Your task to perform on an android device: Add "razer kraken" to the cart on bestbuy.com, then select checkout. Image 0: 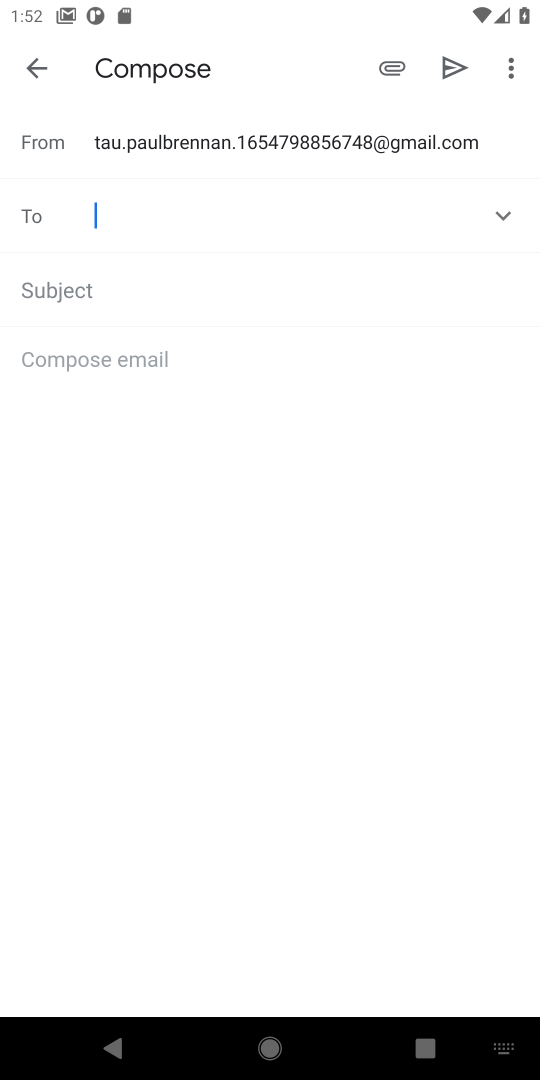
Step 0: press home button
Your task to perform on an android device: Add "razer kraken" to the cart on bestbuy.com, then select checkout. Image 1: 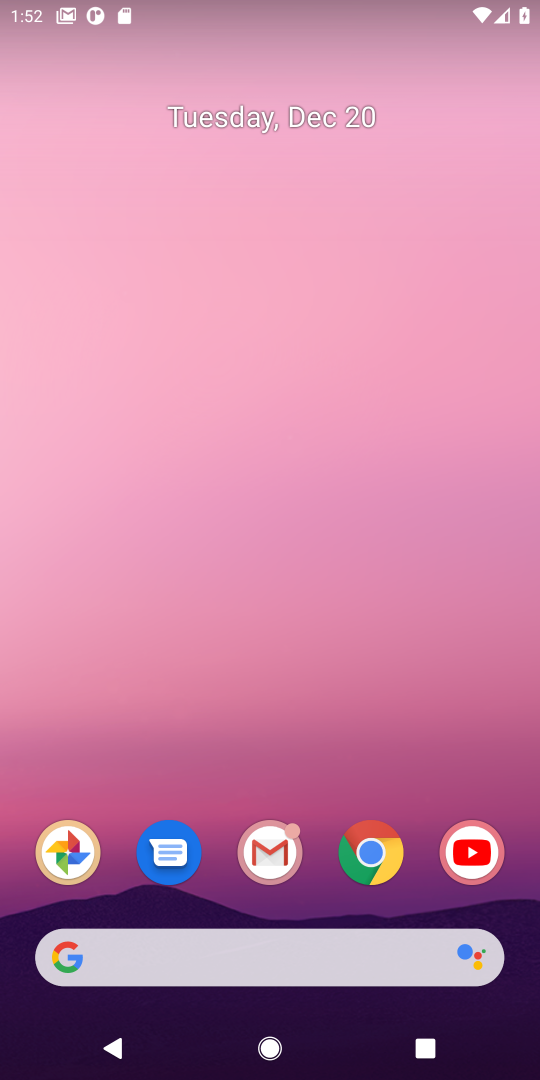
Step 1: click (366, 865)
Your task to perform on an android device: Add "razer kraken" to the cart on bestbuy.com, then select checkout. Image 2: 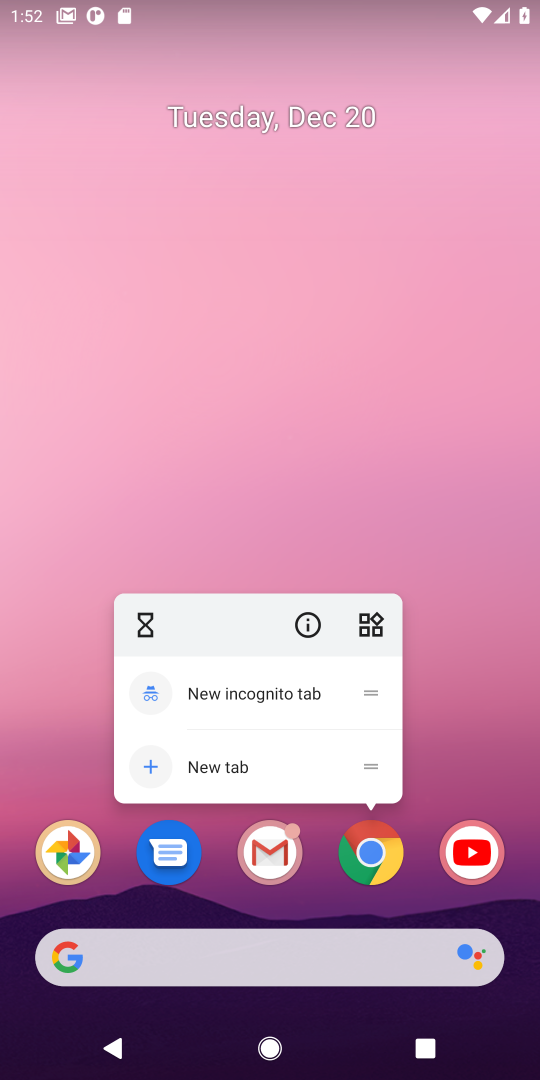
Step 2: click (366, 865)
Your task to perform on an android device: Add "razer kraken" to the cart on bestbuy.com, then select checkout. Image 3: 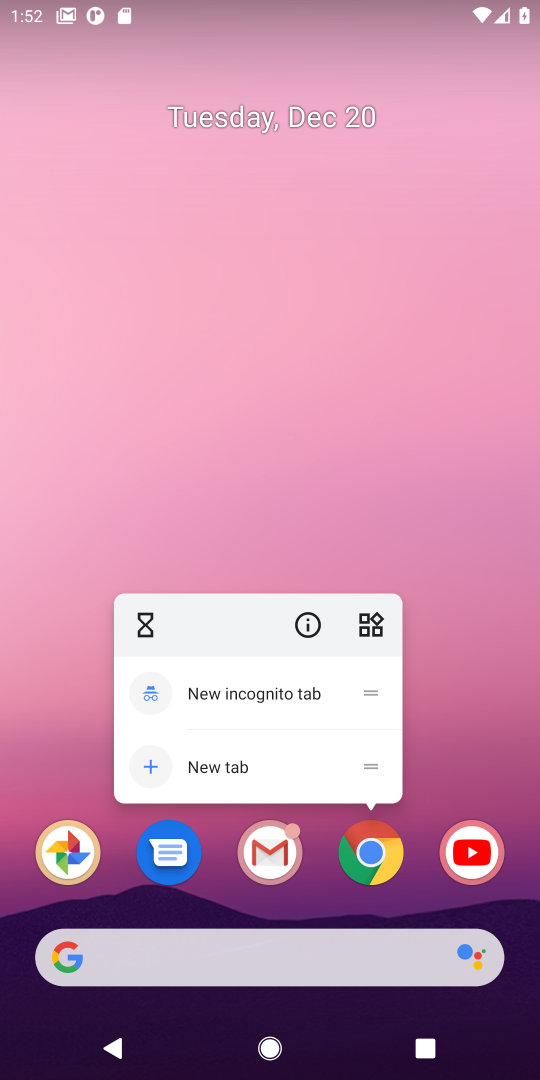
Step 3: click (382, 862)
Your task to perform on an android device: Add "razer kraken" to the cart on bestbuy.com, then select checkout. Image 4: 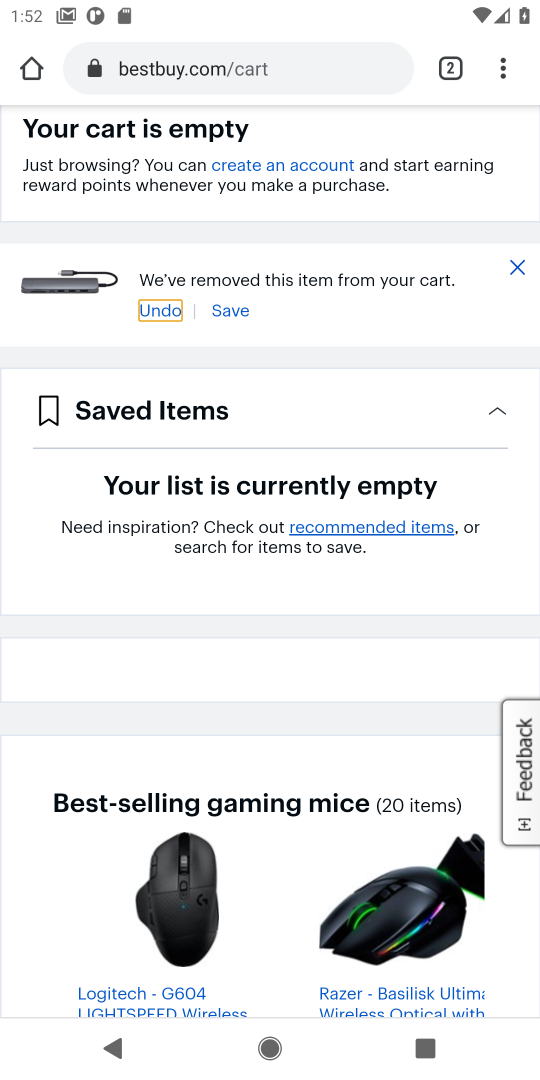
Step 4: drag from (231, 251) to (251, 677)
Your task to perform on an android device: Add "razer kraken" to the cart on bestbuy.com, then select checkout. Image 5: 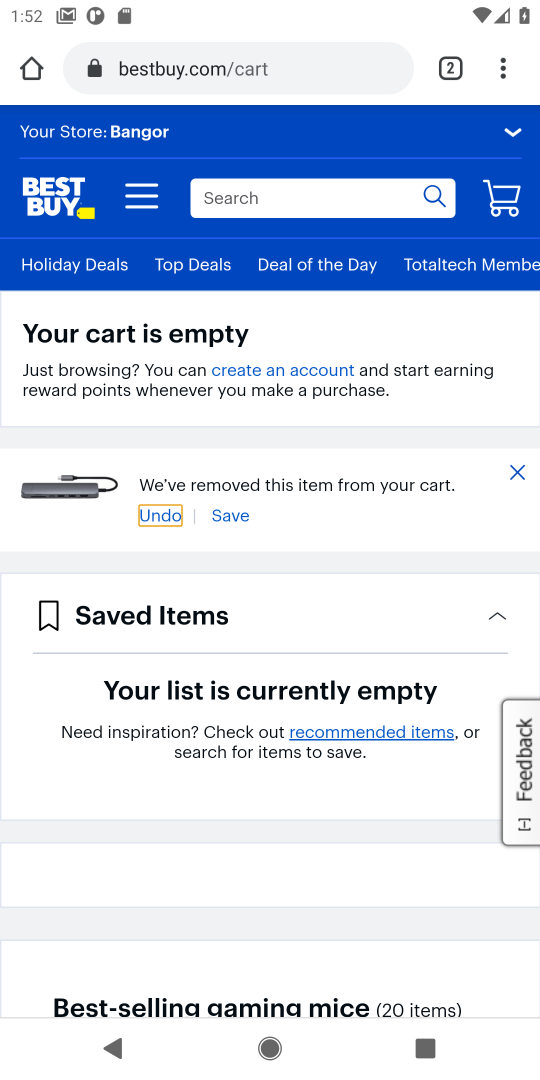
Step 5: click (233, 206)
Your task to perform on an android device: Add "razer kraken" to the cart on bestbuy.com, then select checkout. Image 6: 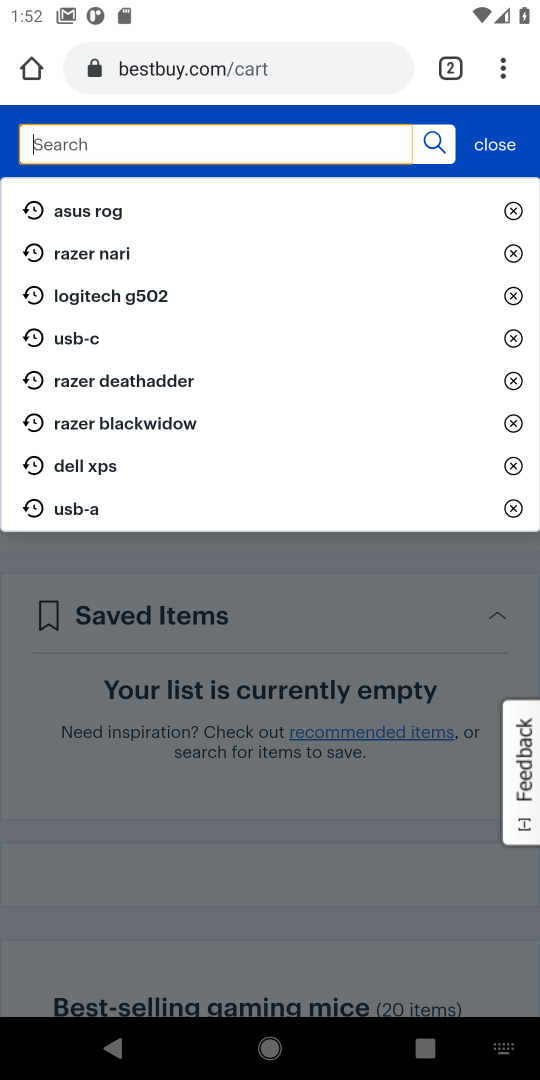
Step 6: type "razer kraken"
Your task to perform on an android device: Add "razer kraken" to the cart on bestbuy.com, then select checkout. Image 7: 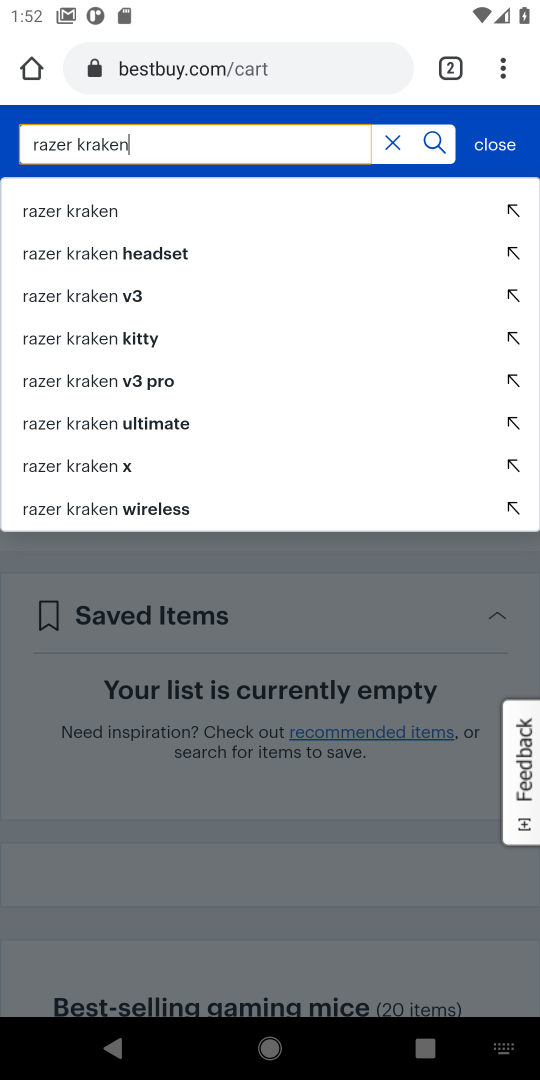
Step 7: click (55, 213)
Your task to perform on an android device: Add "razer kraken" to the cart on bestbuy.com, then select checkout. Image 8: 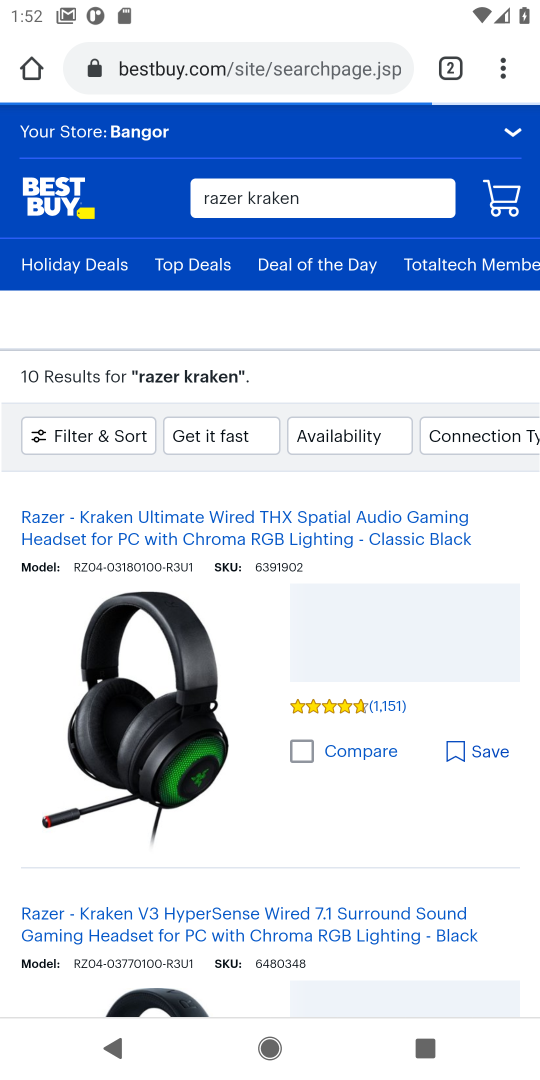
Step 8: drag from (166, 661) to (183, 345)
Your task to perform on an android device: Add "razer kraken" to the cart on bestbuy.com, then select checkout. Image 9: 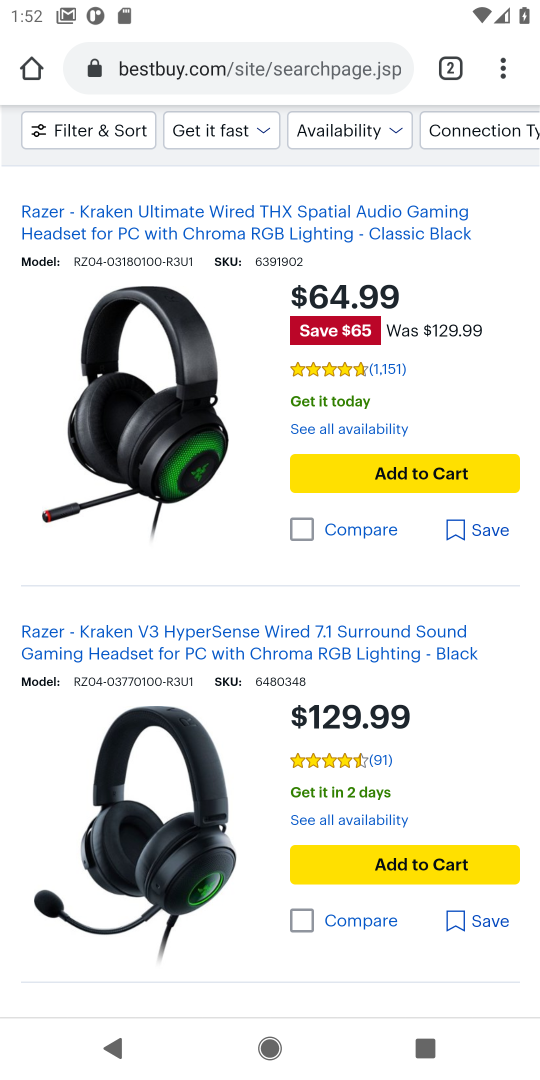
Step 9: click (412, 484)
Your task to perform on an android device: Add "razer kraken" to the cart on bestbuy.com, then select checkout. Image 10: 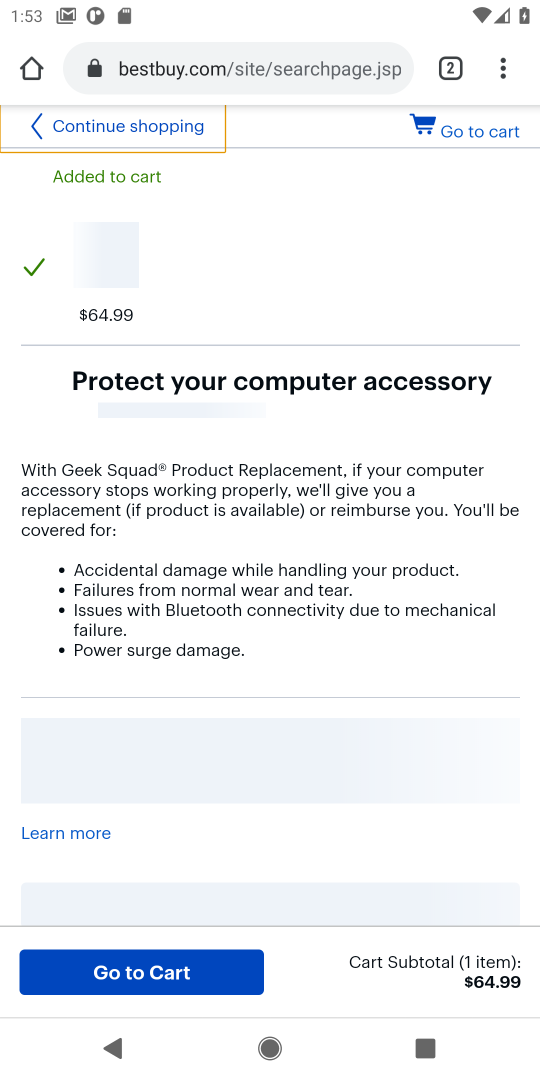
Step 10: click (475, 138)
Your task to perform on an android device: Add "razer kraken" to the cart on bestbuy.com, then select checkout. Image 11: 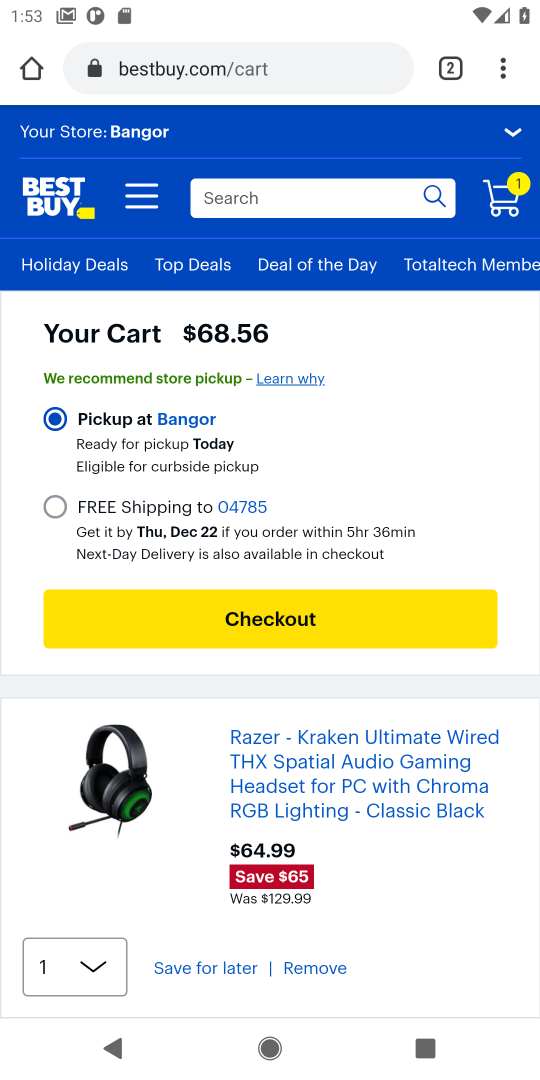
Step 11: click (258, 625)
Your task to perform on an android device: Add "razer kraken" to the cart on bestbuy.com, then select checkout. Image 12: 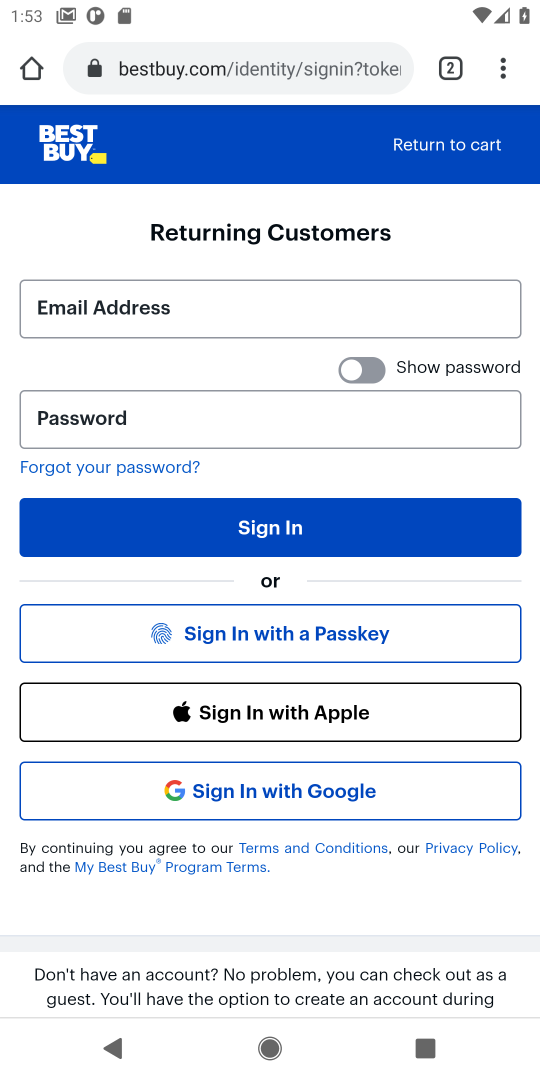
Step 12: task complete